Your task to perform on an android device: Open settings Image 0: 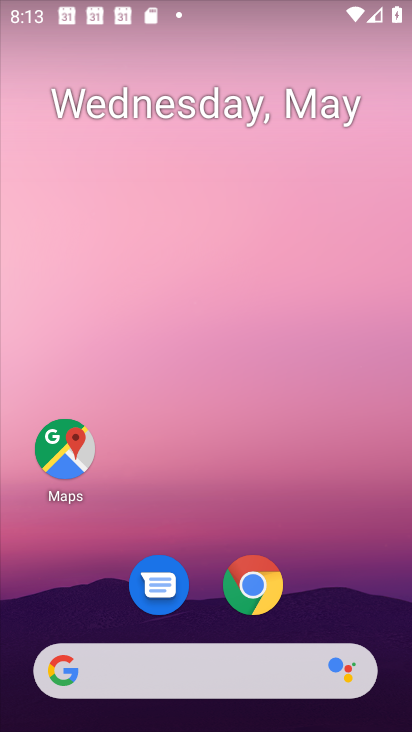
Step 0: drag from (355, 551) to (271, 53)
Your task to perform on an android device: Open settings Image 1: 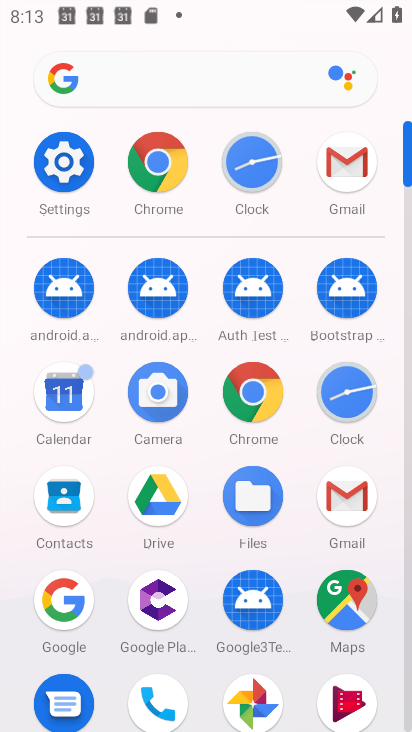
Step 1: click (58, 151)
Your task to perform on an android device: Open settings Image 2: 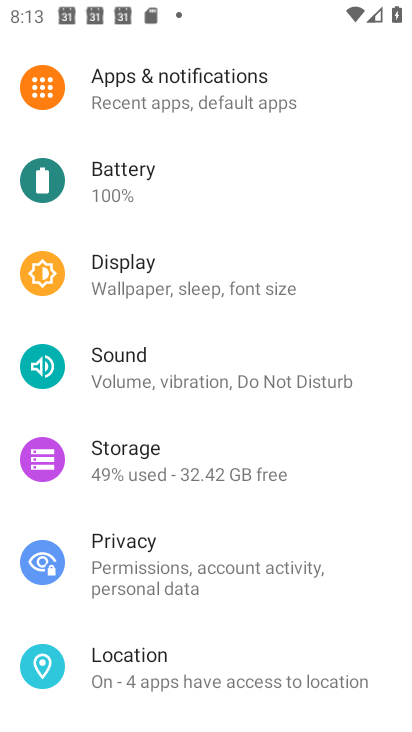
Step 2: task complete